Your task to perform on an android device: find photos in the google photos app Image 0: 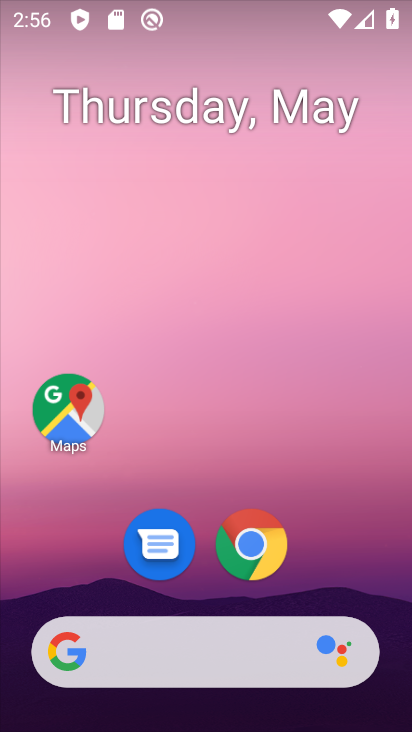
Step 0: drag from (196, 606) to (265, 261)
Your task to perform on an android device: find photos in the google photos app Image 1: 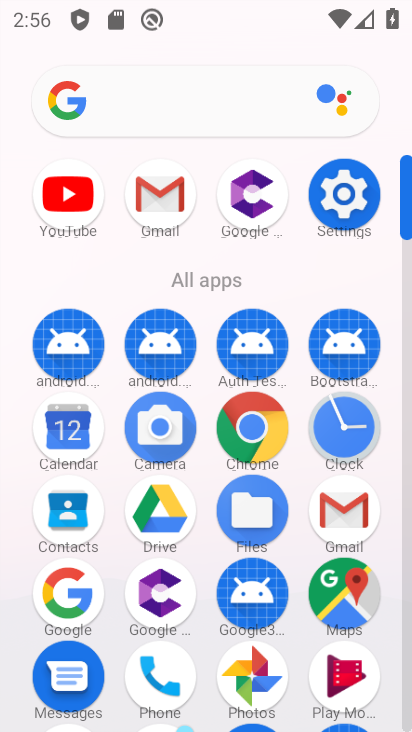
Step 1: click (276, 694)
Your task to perform on an android device: find photos in the google photos app Image 2: 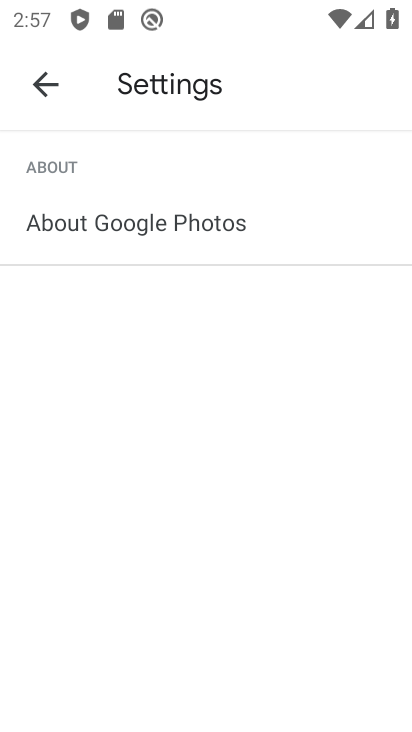
Step 2: click (45, 91)
Your task to perform on an android device: find photos in the google photos app Image 3: 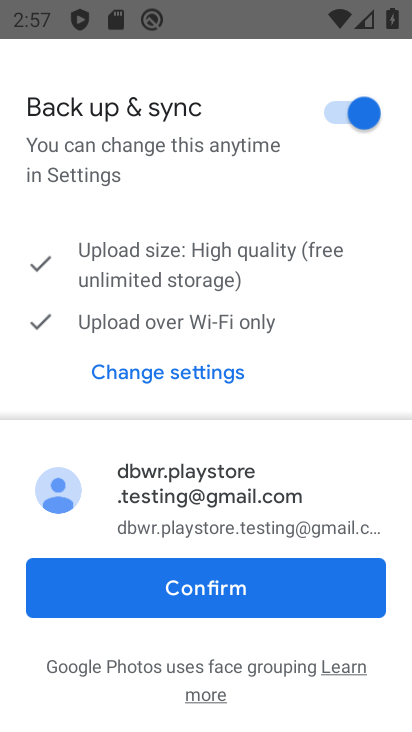
Step 3: click (181, 580)
Your task to perform on an android device: find photos in the google photos app Image 4: 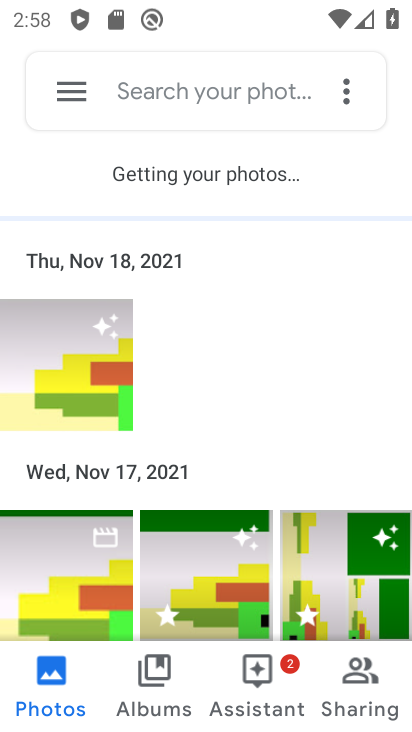
Step 4: task complete